Your task to perform on an android device: turn on showing notifications on the lock screen Image 0: 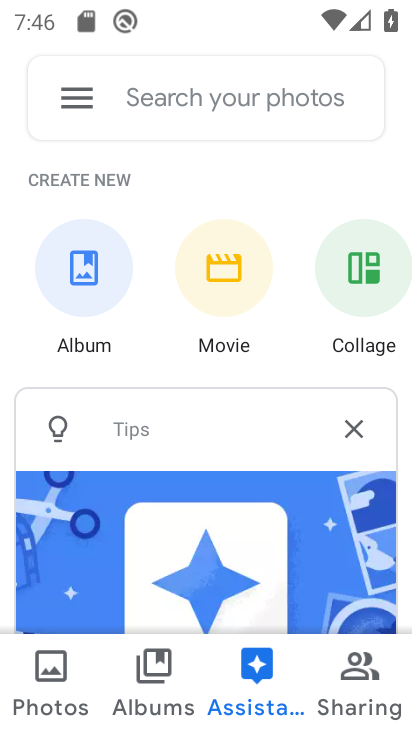
Step 0: press home button
Your task to perform on an android device: turn on showing notifications on the lock screen Image 1: 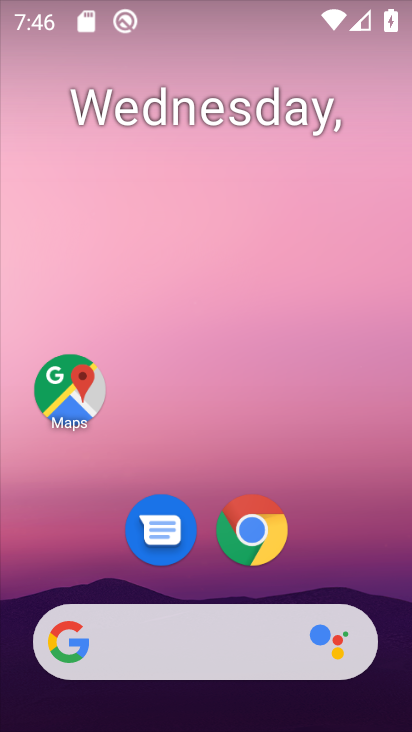
Step 1: drag from (395, 639) to (335, 60)
Your task to perform on an android device: turn on showing notifications on the lock screen Image 2: 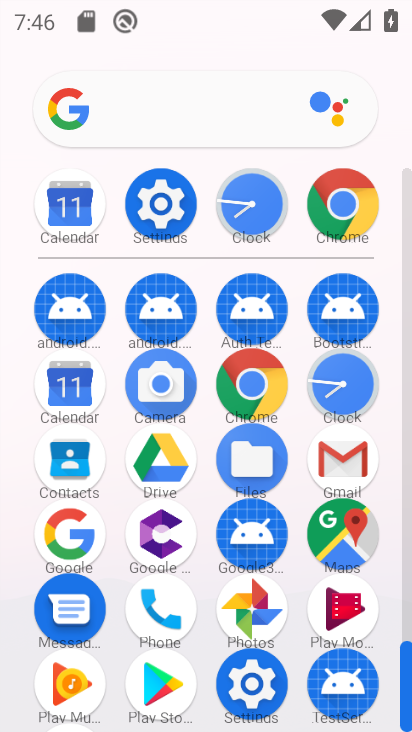
Step 2: click (138, 218)
Your task to perform on an android device: turn on showing notifications on the lock screen Image 3: 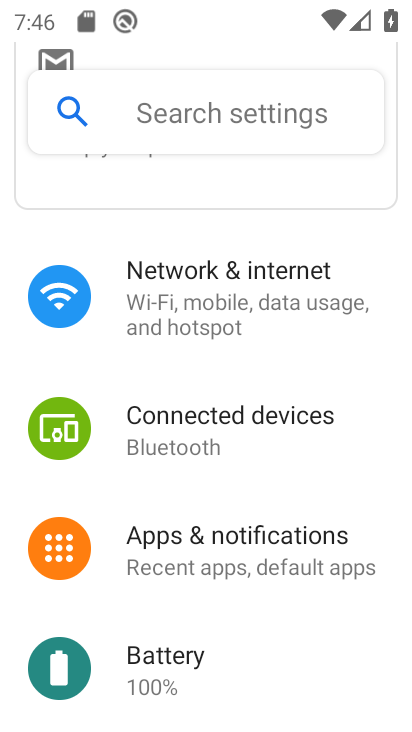
Step 3: click (228, 562)
Your task to perform on an android device: turn on showing notifications on the lock screen Image 4: 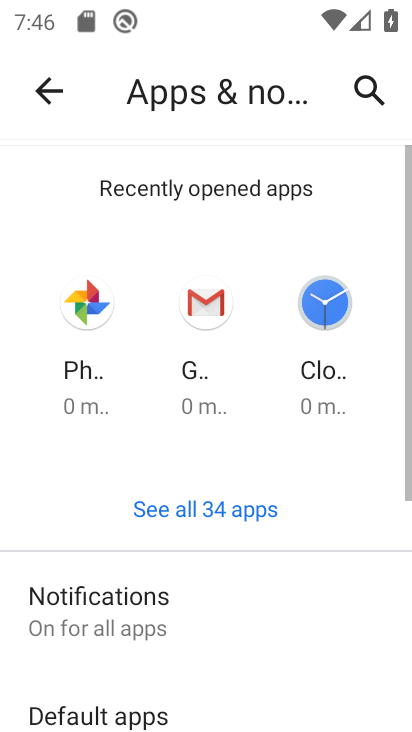
Step 4: click (214, 603)
Your task to perform on an android device: turn on showing notifications on the lock screen Image 5: 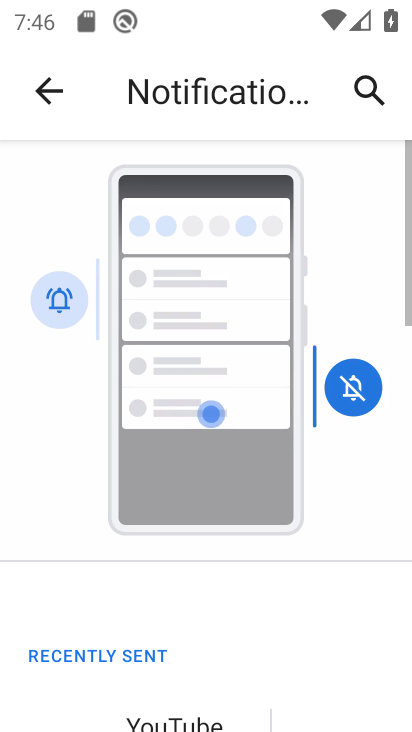
Step 5: drag from (217, 625) to (251, 45)
Your task to perform on an android device: turn on showing notifications on the lock screen Image 6: 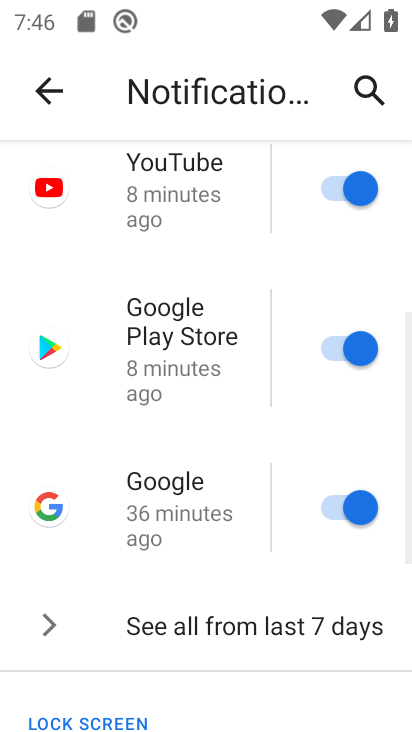
Step 6: drag from (214, 617) to (264, 256)
Your task to perform on an android device: turn on showing notifications on the lock screen Image 7: 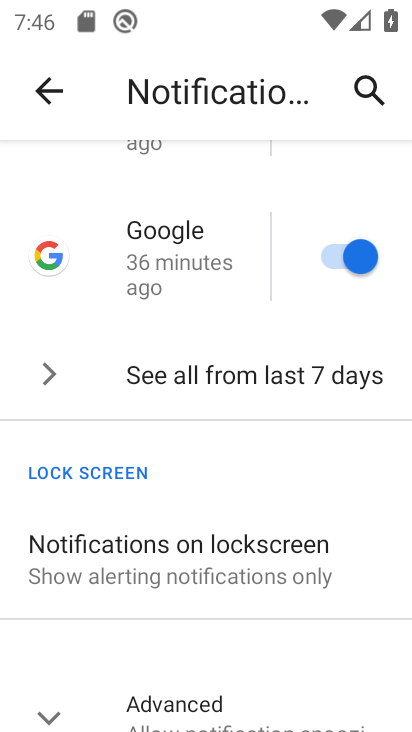
Step 7: click (255, 570)
Your task to perform on an android device: turn on showing notifications on the lock screen Image 8: 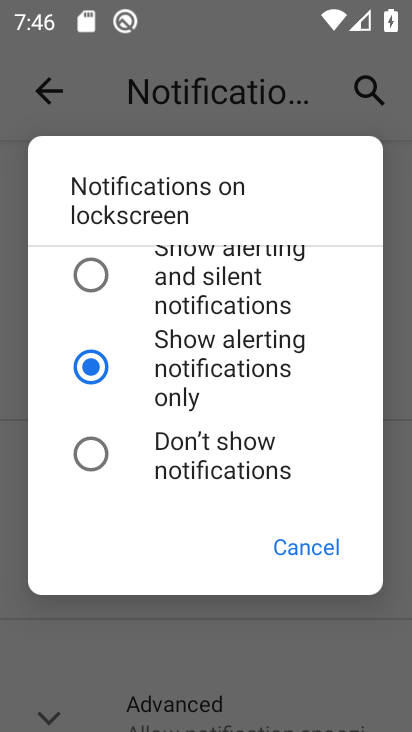
Step 8: click (143, 266)
Your task to perform on an android device: turn on showing notifications on the lock screen Image 9: 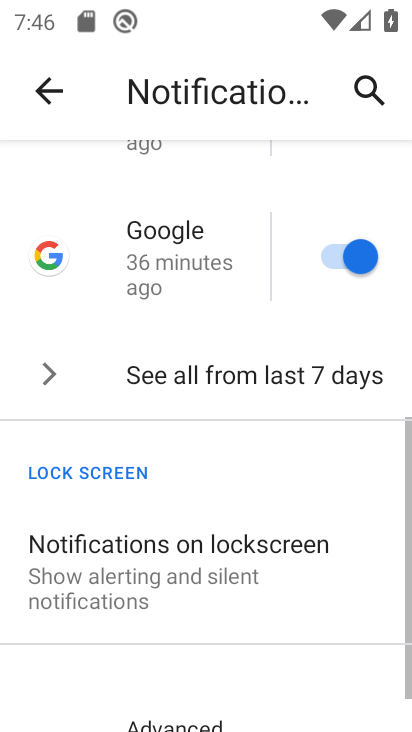
Step 9: task complete